Your task to perform on an android device: move an email to a new category in the gmail app Image 0: 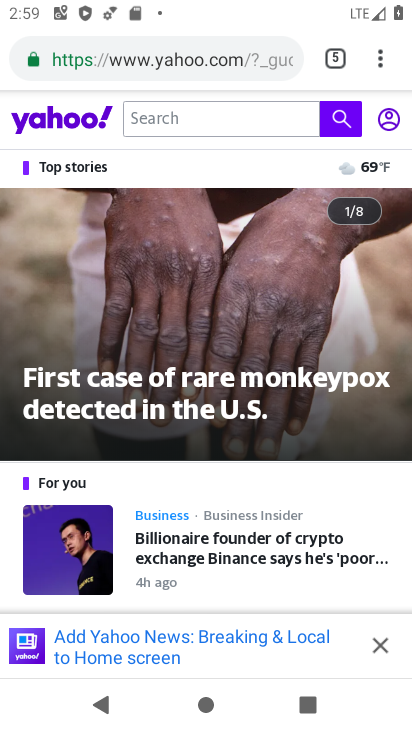
Step 0: press home button
Your task to perform on an android device: move an email to a new category in the gmail app Image 1: 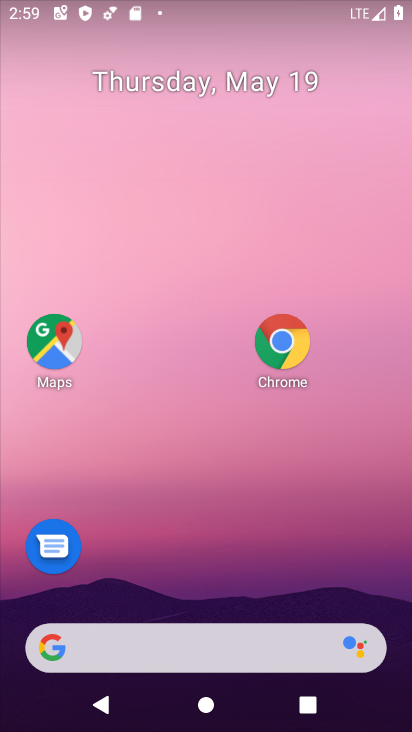
Step 1: drag from (147, 641) to (267, 197)
Your task to perform on an android device: move an email to a new category in the gmail app Image 2: 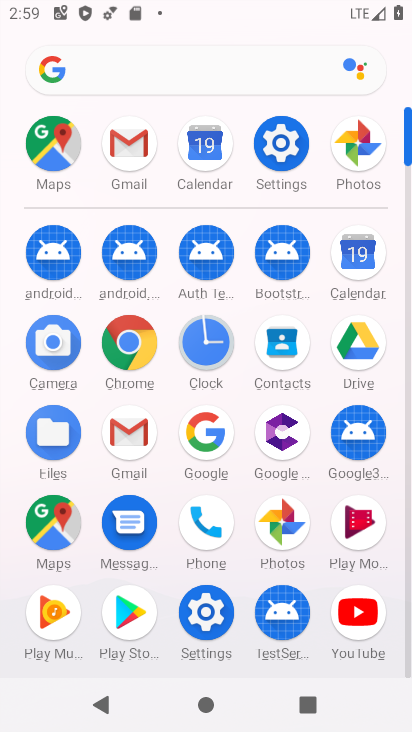
Step 2: click (133, 160)
Your task to perform on an android device: move an email to a new category in the gmail app Image 3: 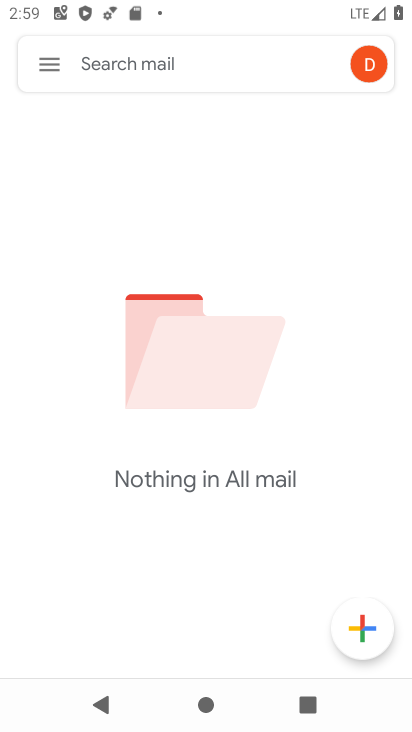
Step 3: task complete